Your task to perform on an android device: Open the calendar app, open the side menu, and click the "Day" option Image 0: 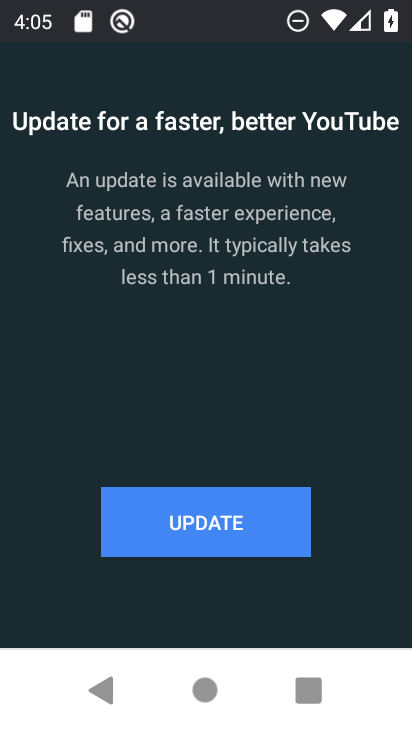
Step 0: press home button
Your task to perform on an android device: Open the calendar app, open the side menu, and click the "Day" option Image 1: 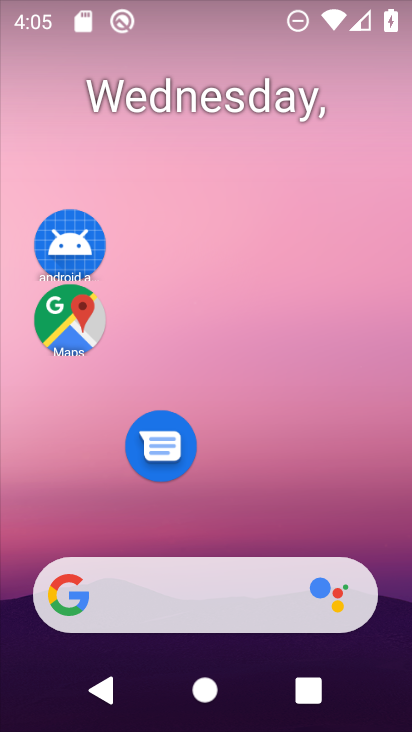
Step 1: drag from (310, 482) to (375, 69)
Your task to perform on an android device: Open the calendar app, open the side menu, and click the "Day" option Image 2: 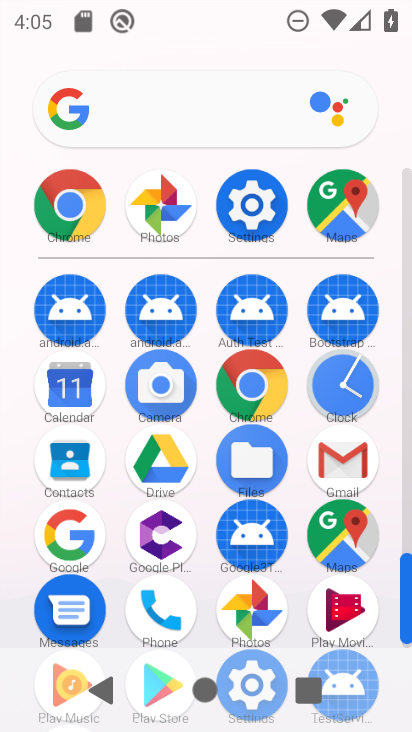
Step 2: click (166, 227)
Your task to perform on an android device: Open the calendar app, open the side menu, and click the "Day" option Image 3: 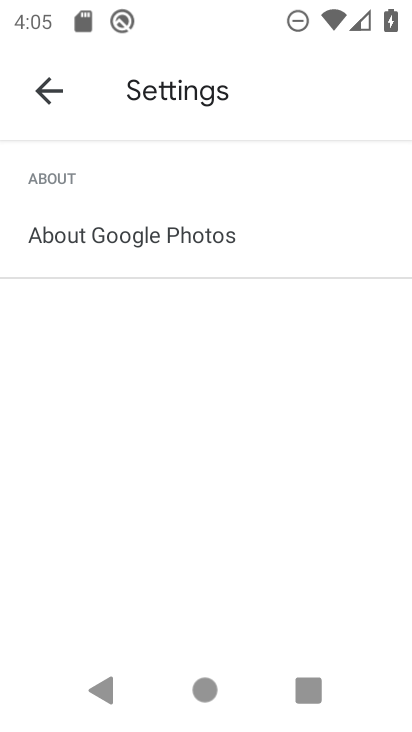
Step 3: click (63, 84)
Your task to perform on an android device: Open the calendar app, open the side menu, and click the "Day" option Image 4: 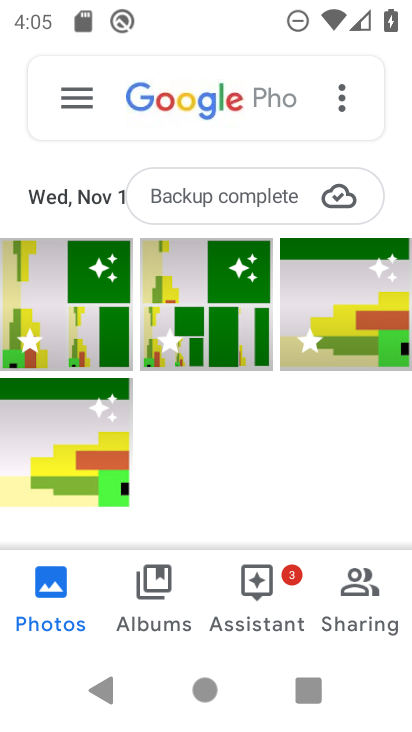
Step 4: click (85, 99)
Your task to perform on an android device: Open the calendar app, open the side menu, and click the "Day" option Image 5: 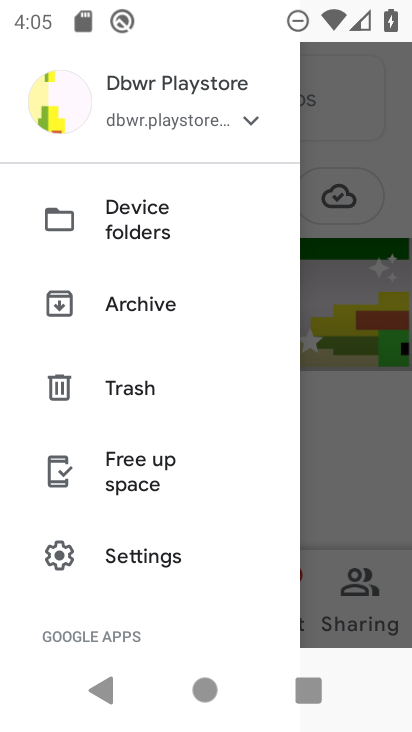
Step 5: click (79, 100)
Your task to perform on an android device: Open the calendar app, open the side menu, and click the "Day" option Image 6: 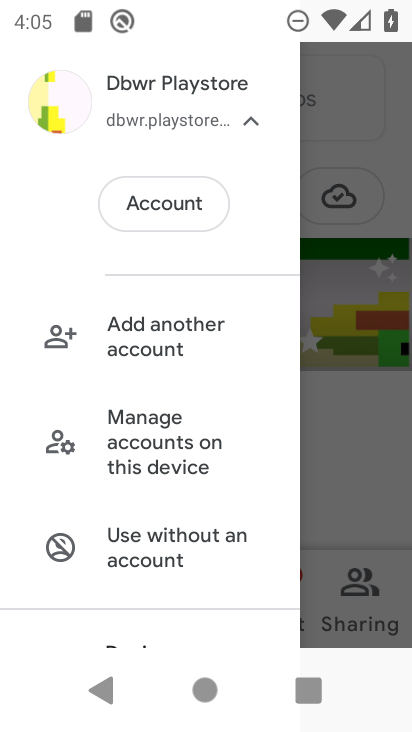
Step 6: click (294, 180)
Your task to perform on an android device: Open the calendar app, open the side menu, and click the "Day" option Image 7: 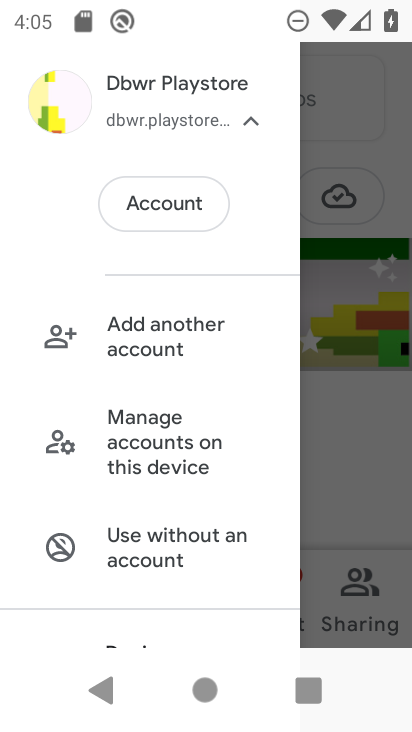
Step 7: press home button
Your task to perform on an android device: Open the calendar app, open the side menu, and click the "Day" option Image 8: 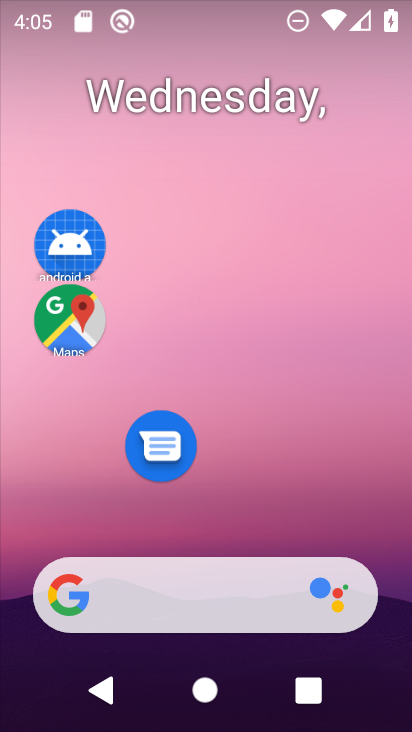
Step 8: drag from (229, 501) to (277, 132)
Your task to perform on an android device: Open the calendar app, open the side menu, and click the "Day" option Image 9: 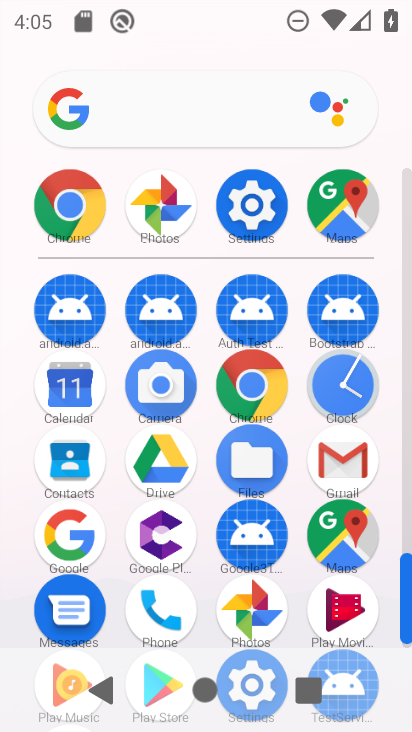
Step 9: click (81, 403)
Your task to perform on an android device: Open the calendar app, open the side menu, and click the "Day" option Image 10: 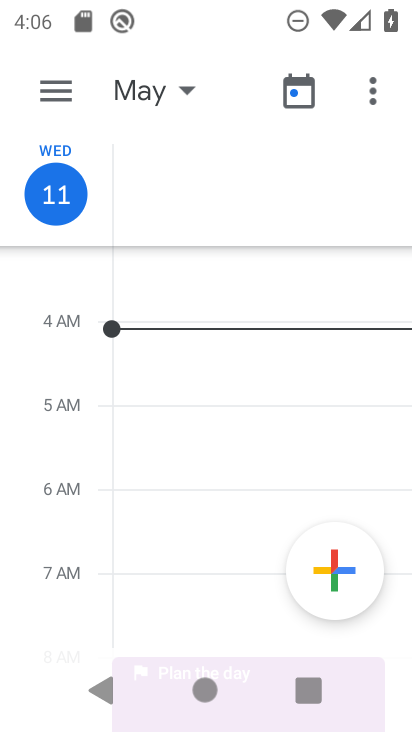
Step 10: click (59, 84)
Your task to perform on an android device: Open the calendar app, open the side menu, and click the "Day" option Image 11: 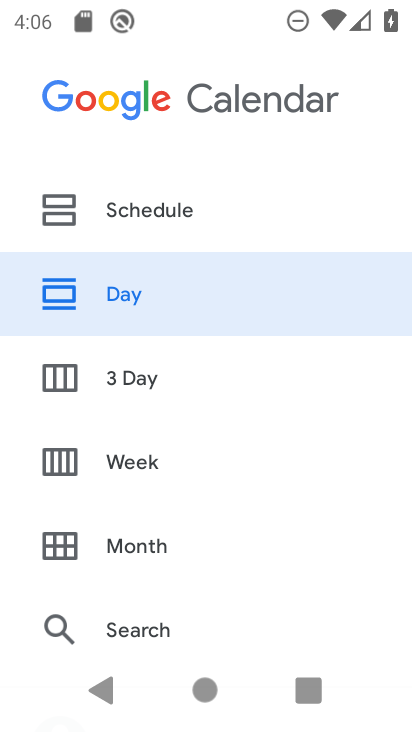
Step 11: click (169, 289)
Your task to perform on an android device: Open the calendar app, open the side menu, and click the "Day" option Image 12: 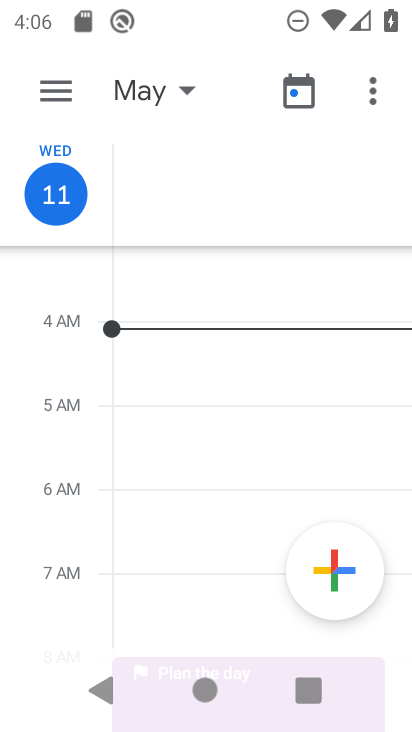
Step 12: task complete